Your task to perform on an android device: turn notification dots off Image 0: 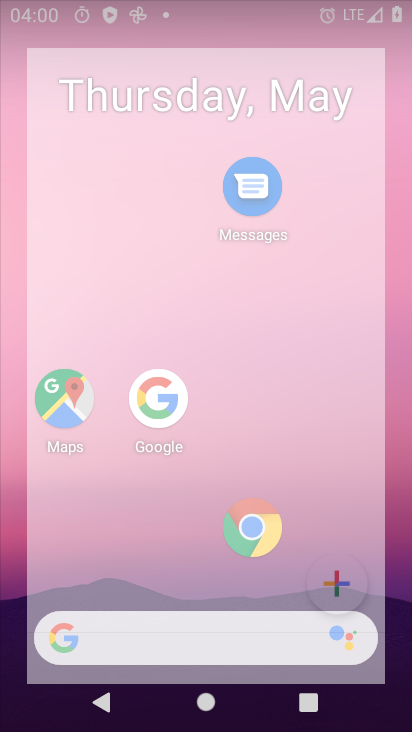
Step 0: drag from (216, 578) to (200, 126)
Your task to perform on an android device: turn notification dots off Image 1: 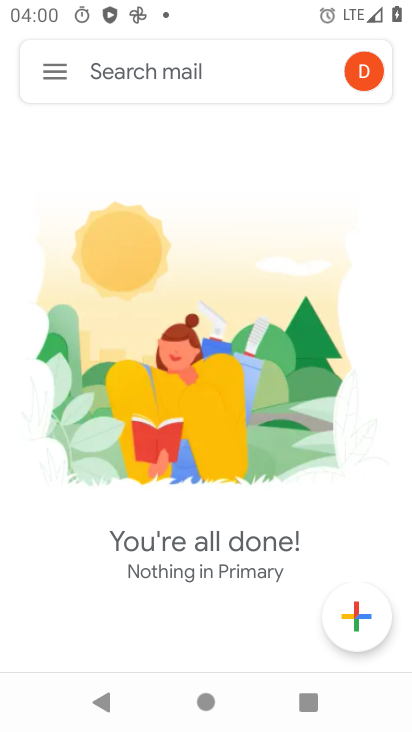
Step 1: press home button
Your task to perform on an android device: turn notification dots off Image 2: 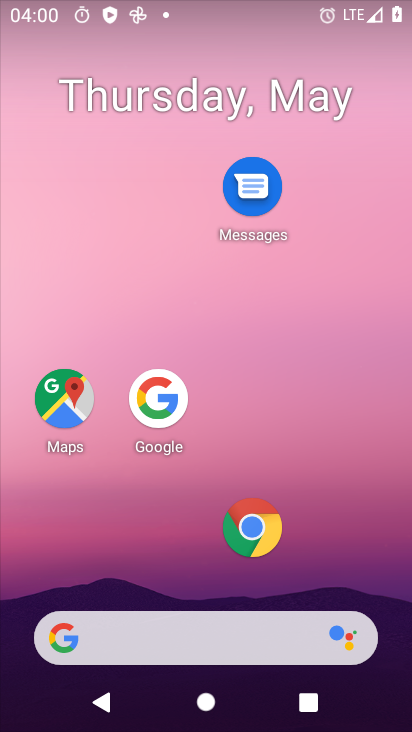
Step 2: drag from (192, 546) to (211, 262)
Your task to perform on an android device: turn notification dots off Image 3: 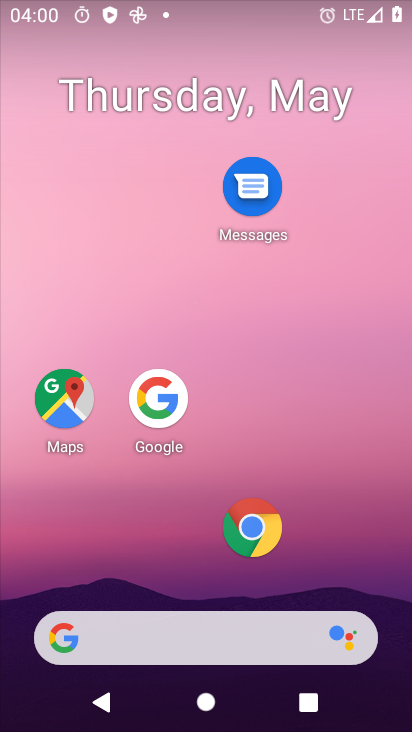
Step 3: drag from (199, 549) to (195, 126)
Your task to perform on an android device: turn notification dots off Image 4: 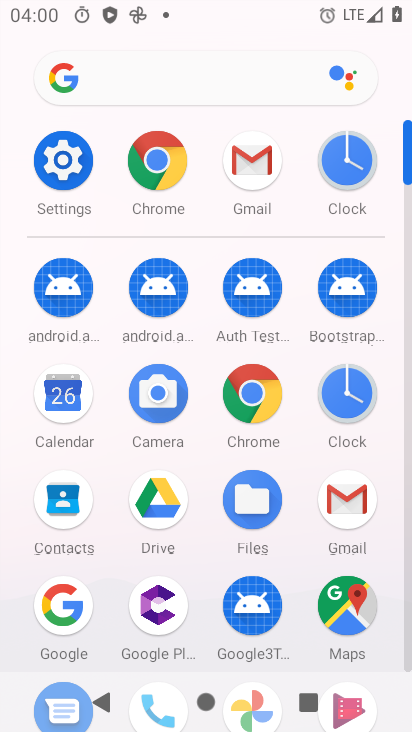
Step 4: click (66, 155)
Your task to perform on an android device: turn notification dots off Image 5: 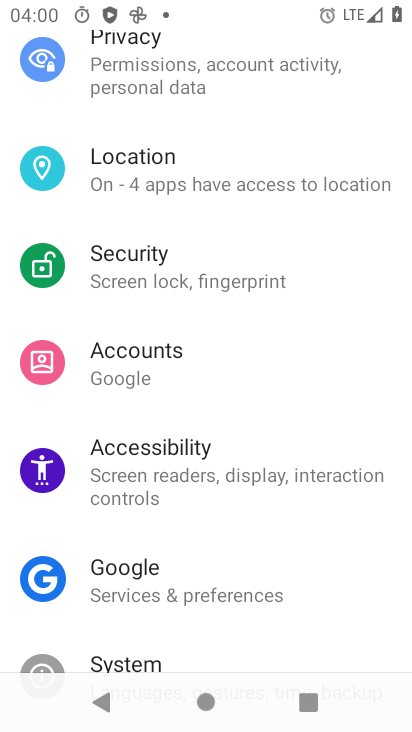
Step 5: drag from (206, 556) to (291, 137)
Your task to perform on an android device: turn notification dots off Image 6: 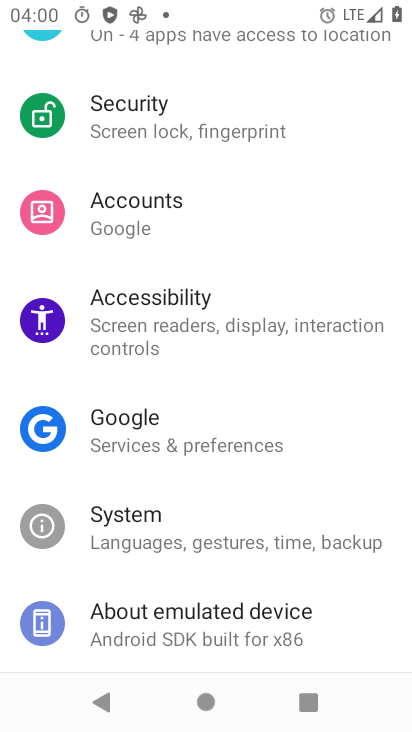
Step 6: drag from (252, 179) to (288, 729)
Your task to perform on an android device: turn notification dots off Image 7: 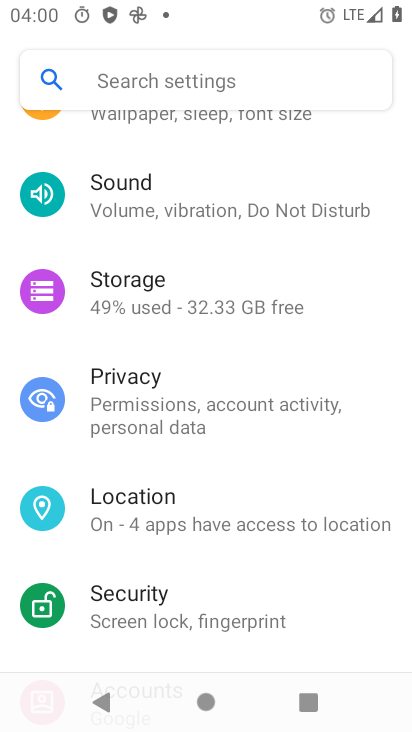
Step 7: drag from (255, 225) to (338, 730)
Your task to perform on an android device: turn notification dots off Image 8: 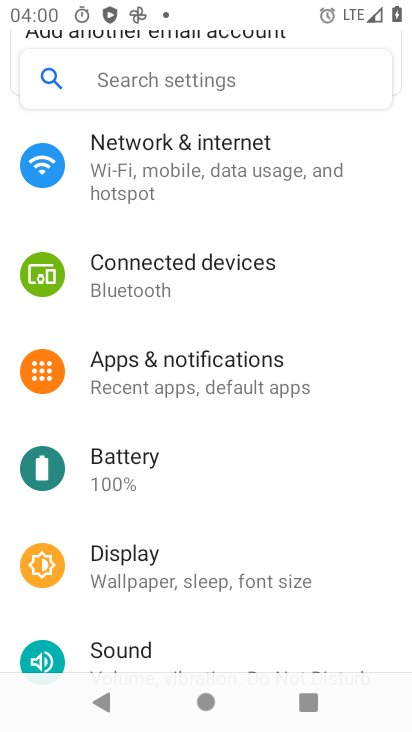
Step 8: click (237, 386)
Your task to perform on an android device: turn notification dots off Image 9: 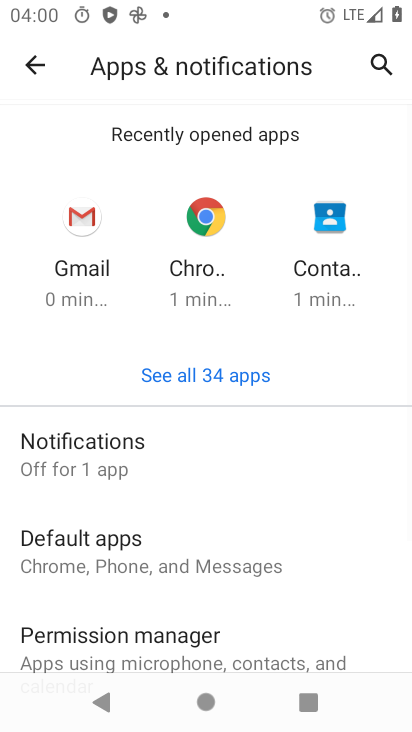
Step 9: drag from (236, 595) to (275, 334)
Your task to perform on an android device: turn notification dots off Image 10: 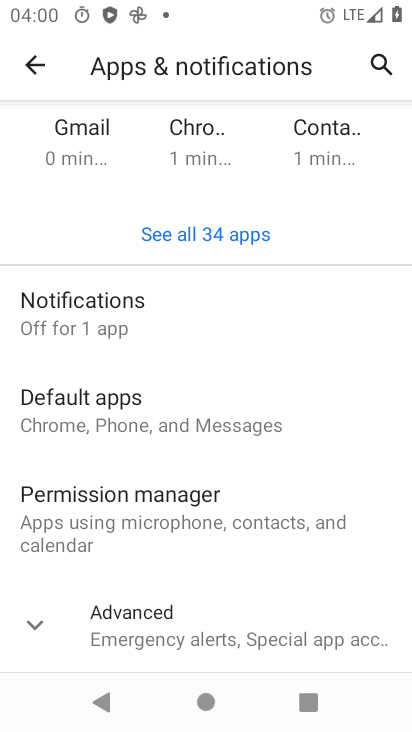
Step 10: click (203, 304)
Your task to perform on an android device: turn notification dots off Image 11: 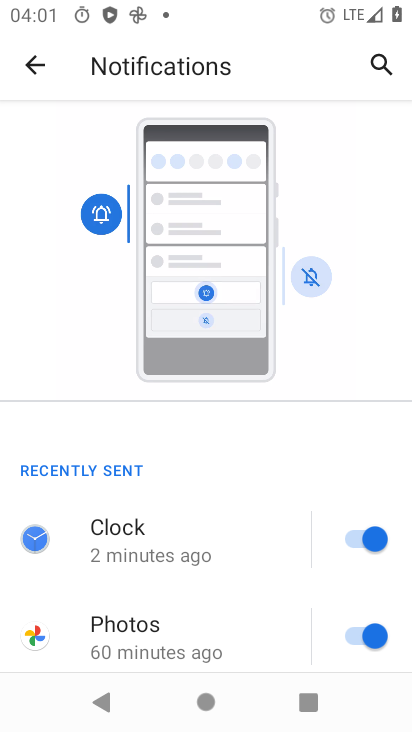
Step 11: drag from (237, 616) to (350, 132)
Your task to perform on an android device: turn notification dots off Image 12: 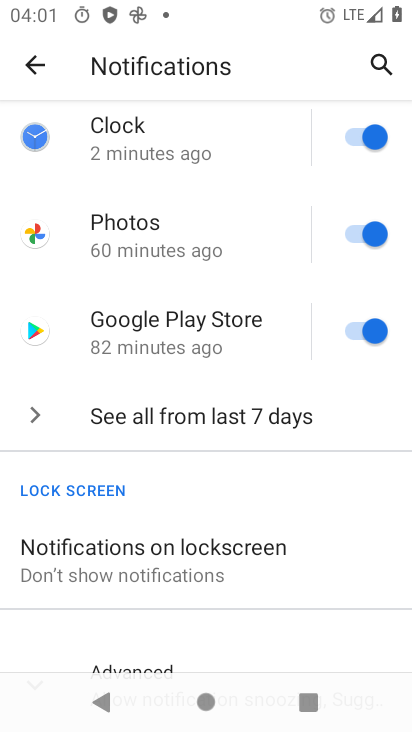
Step 12: drag from (215, 577) to (294, 137)
Your task to perform on an android device: turn notification dots off Image 13: 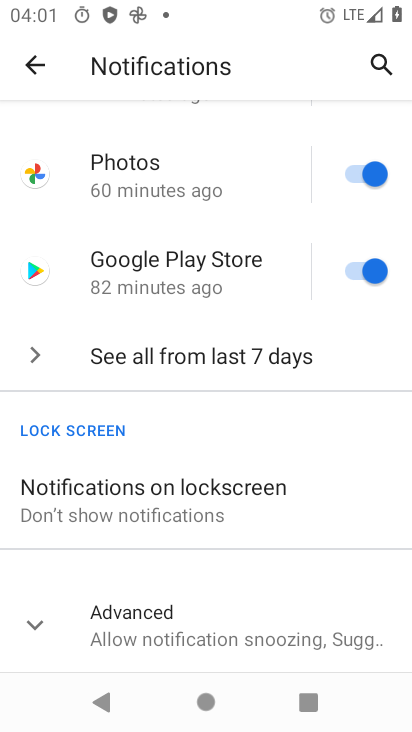
Step 13: click (202, 601)
Your task to perform on an android device: turn notification dots off Image 14: 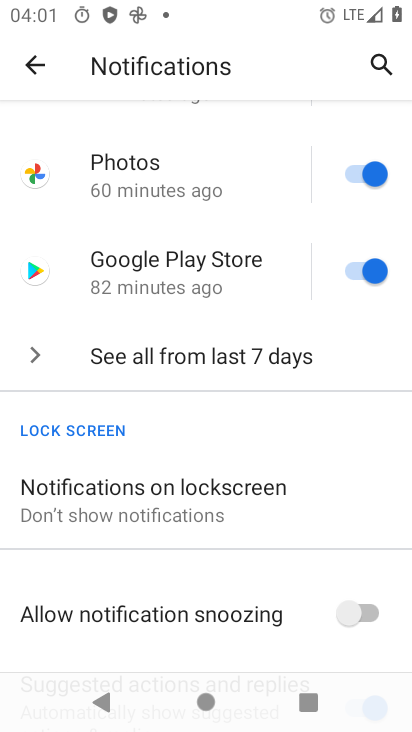
Step 14: drag from (237, 626) to (325, 126)
Your task to perform on an android device: turn notification dots off Image 15: 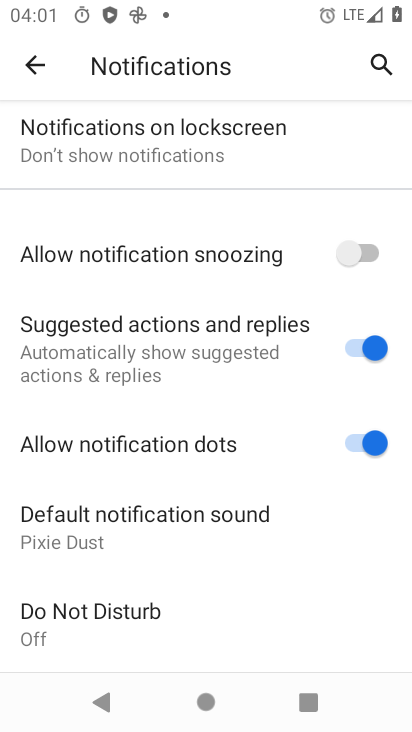
Step 15: click (364, 425)
Your task to perform on an android device: turn notification dots off Image 16: 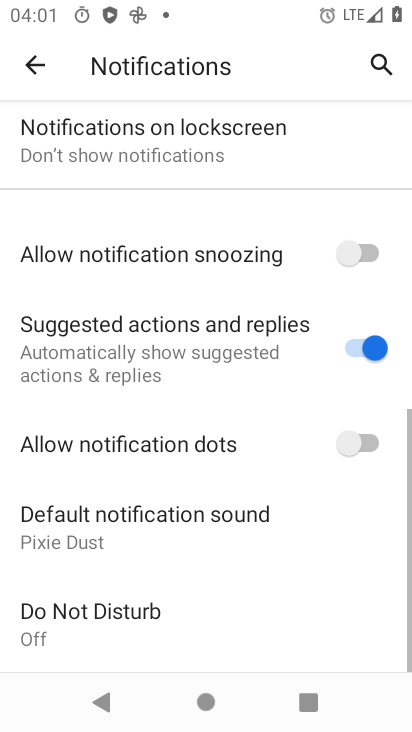
Step 16: task complete